Your task to perform on an android device: Go to network settings Image 0: 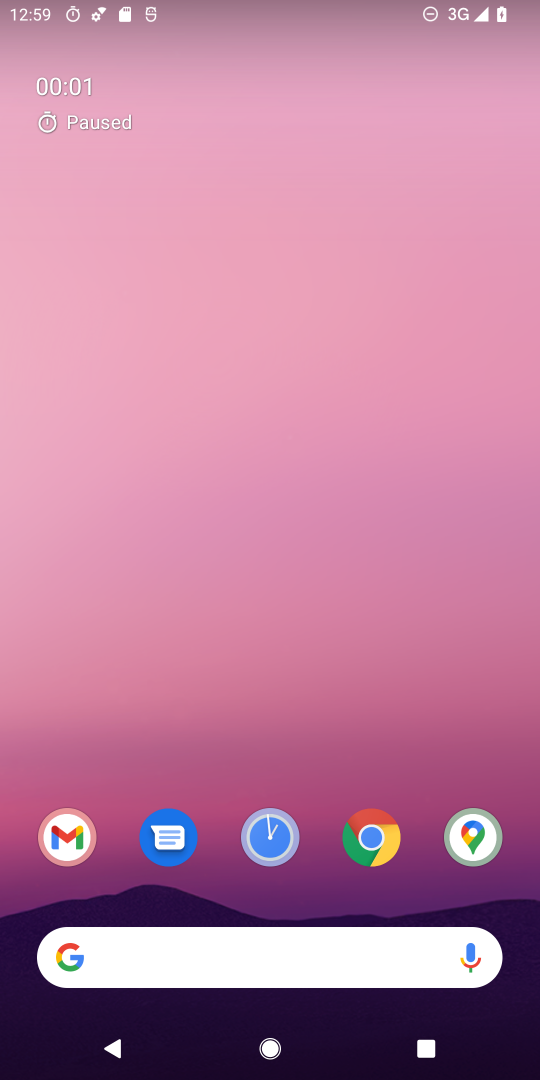
Step 0: drag from (453, 893) to (323, 65)
Your task to perform on an android device: Go to network settings Image 1: 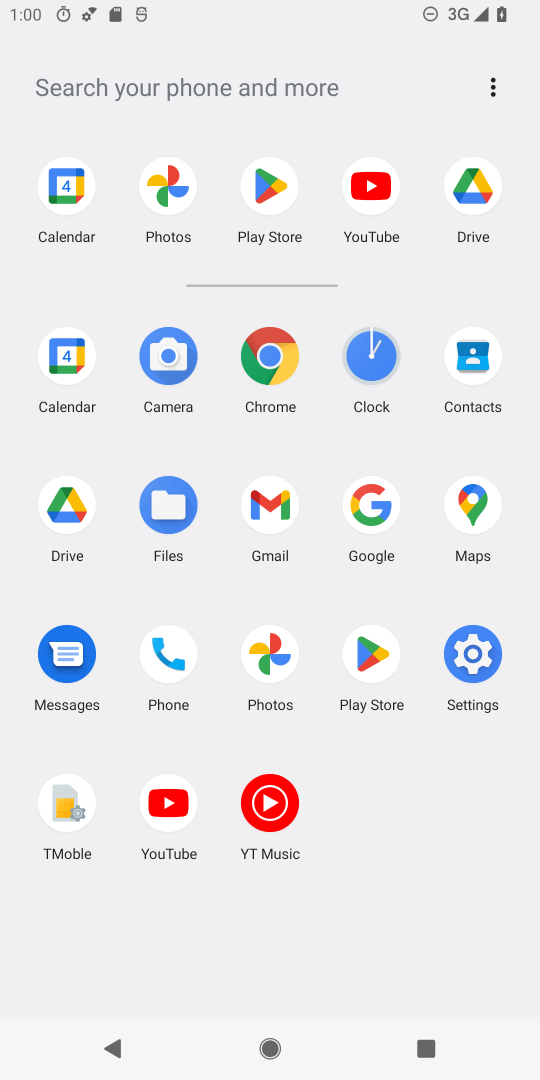
Step 1: click (482, 649)
Your task to perform on an android device: Go to network settings Image 2: 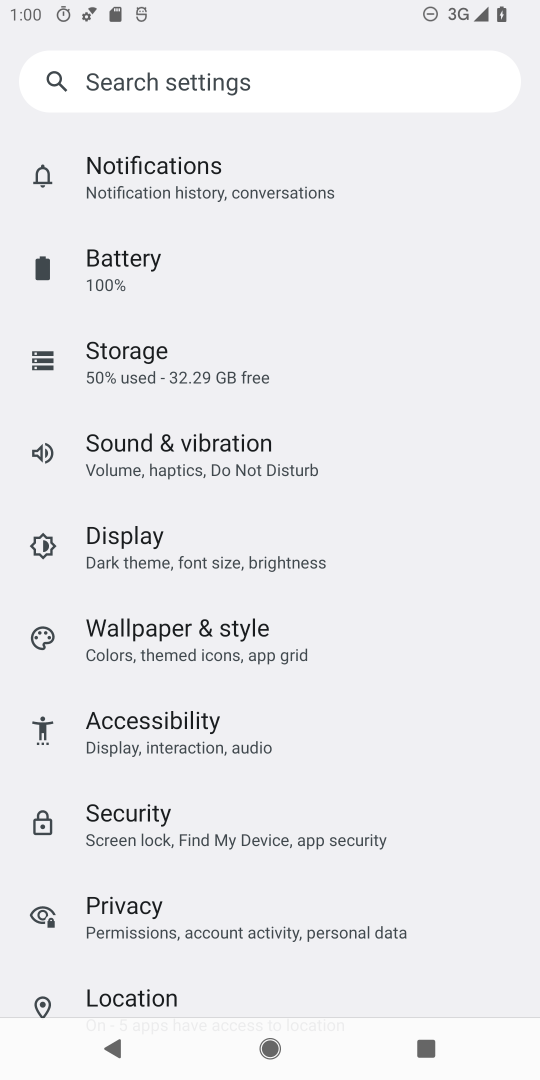
Step 2: drag from (267, 481) to (271, 953)
Your task to perform on an android device: Go to network settings Image 3: 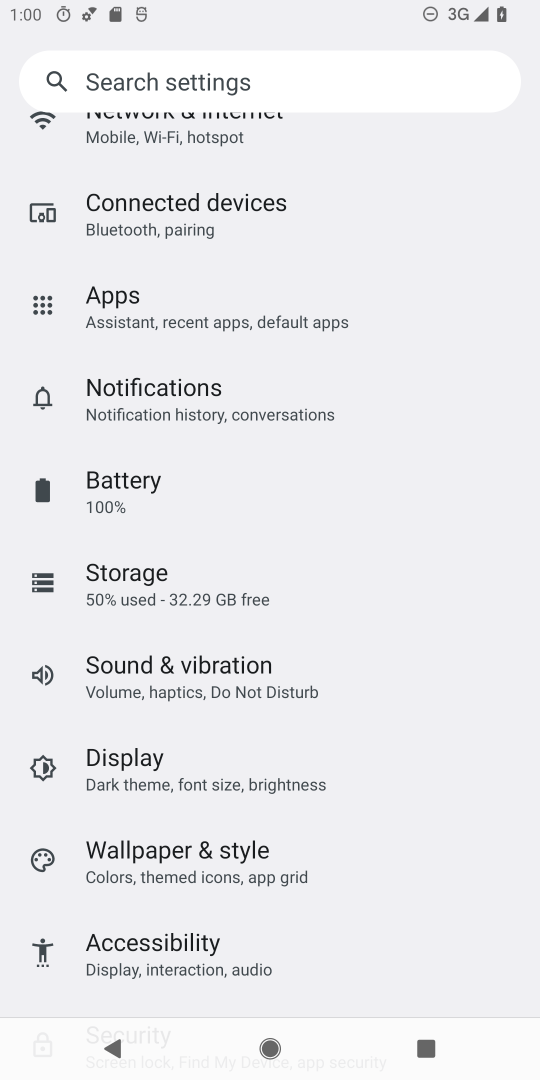
Step 3: drag from (141, 209) to (263, 906)
Your task to perform on an android device: Go to network settings Image 4: 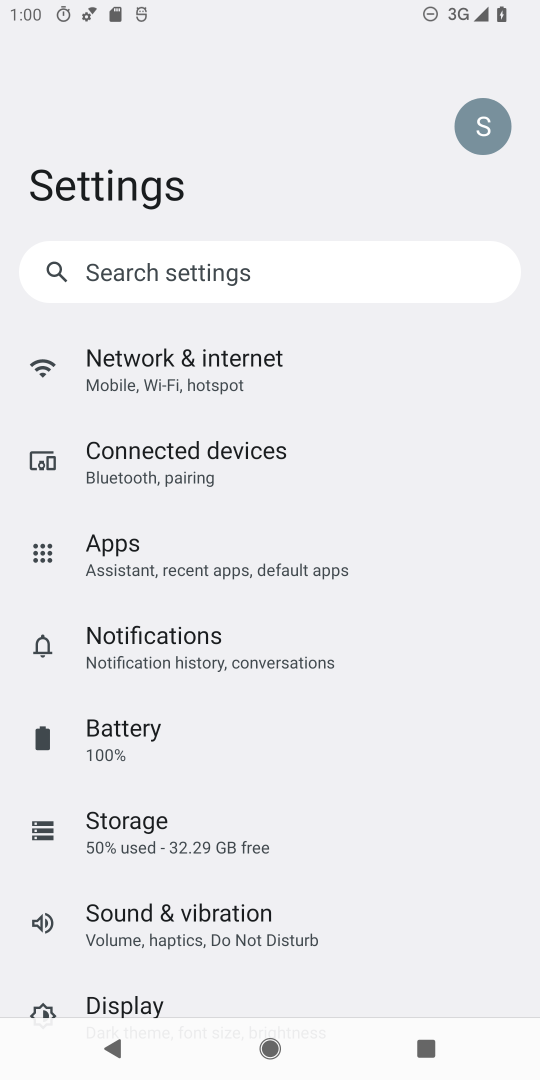
Step 4: click (176, 379)
Your task to perform on an android device: Go to network settings Image 5: 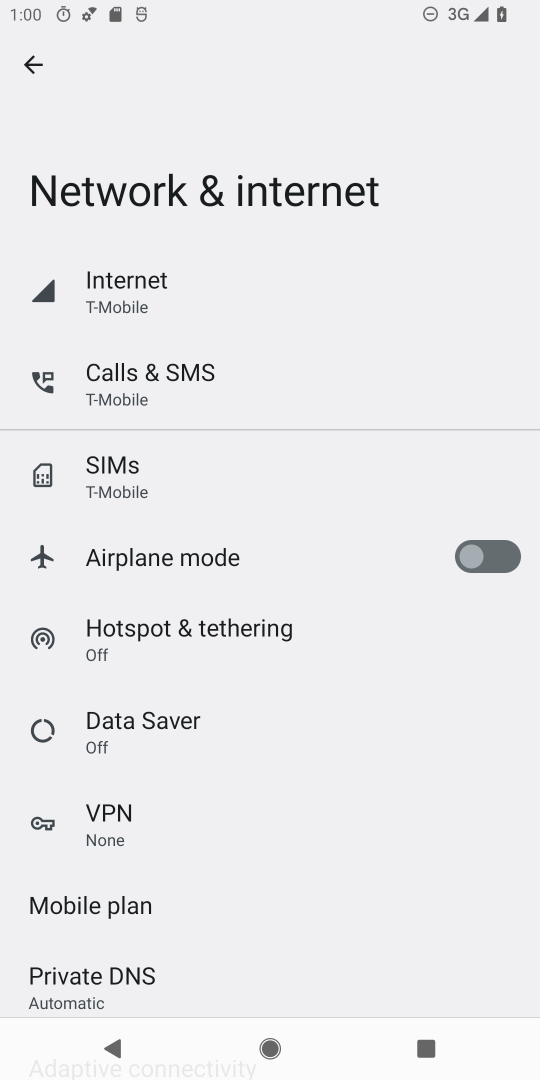
Step 5: task complete